Your task to perform on an android device: open app "DuckDuckGo Privacy Browser" (install if not already installed) Image 0: 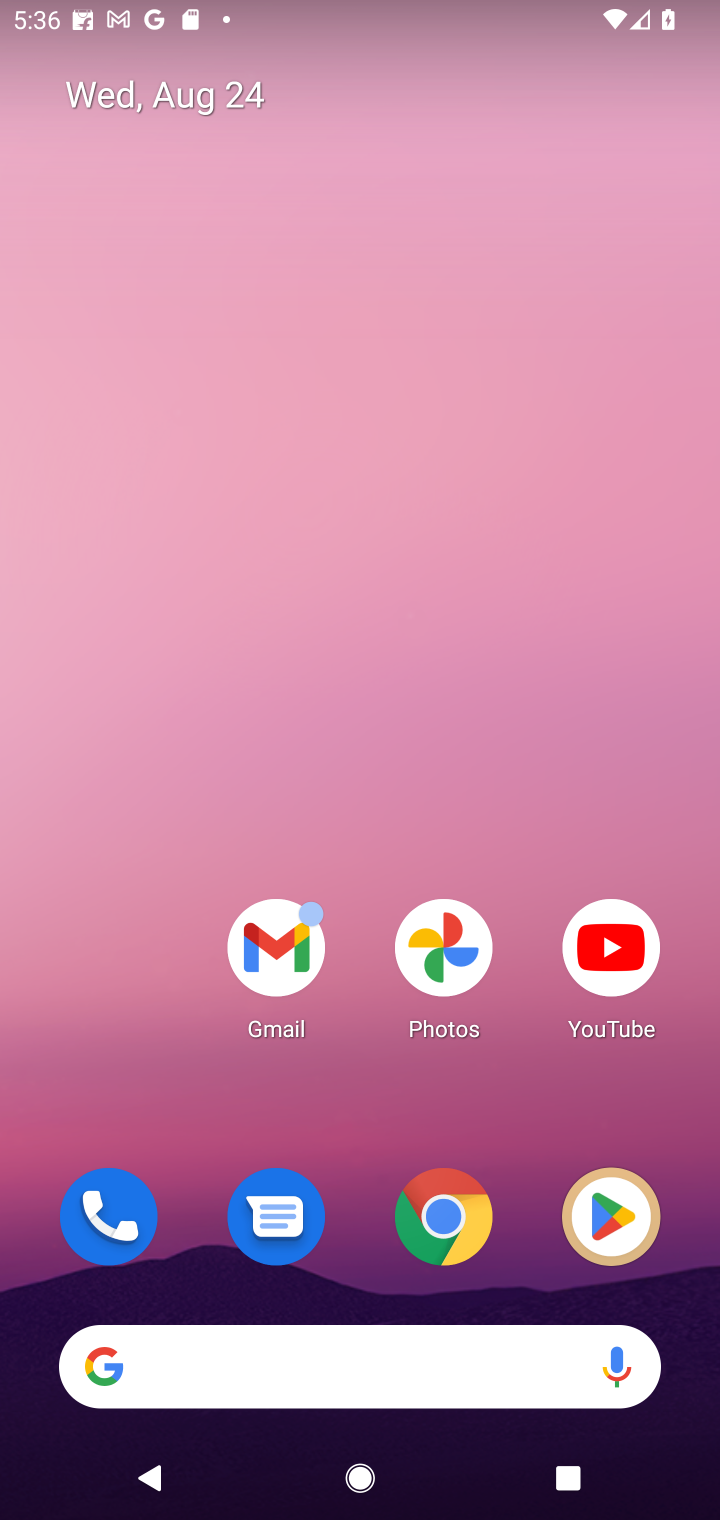
Step 0: click (607, 1234)
Your task to perform on an android device: open app "DuckDuckGo Privacy Browser" (install if not already installed) Image 1: 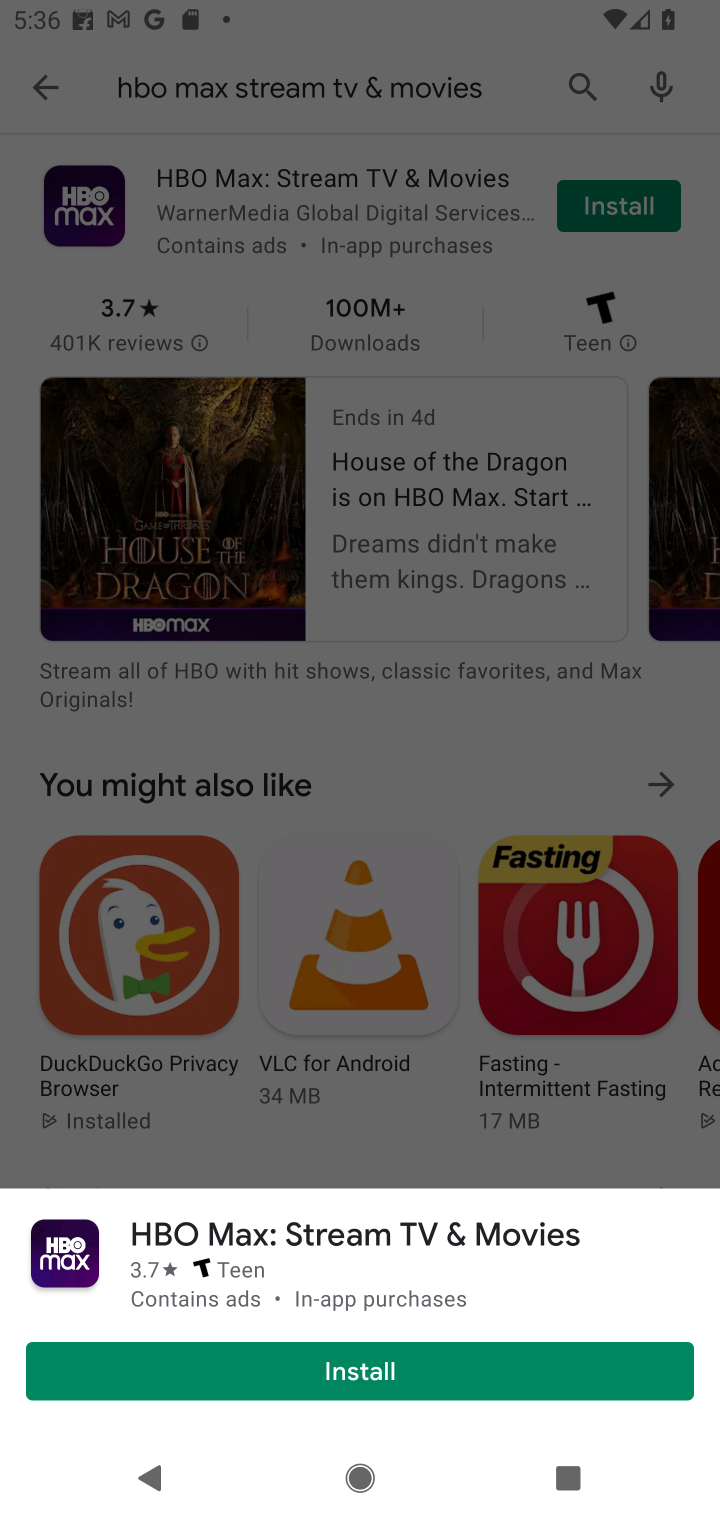
Step 1: click (572, 96)
Your task to perform on an android device: open app "DuckDuckGo Privacy Browser" (install if not already installed) Image 2: 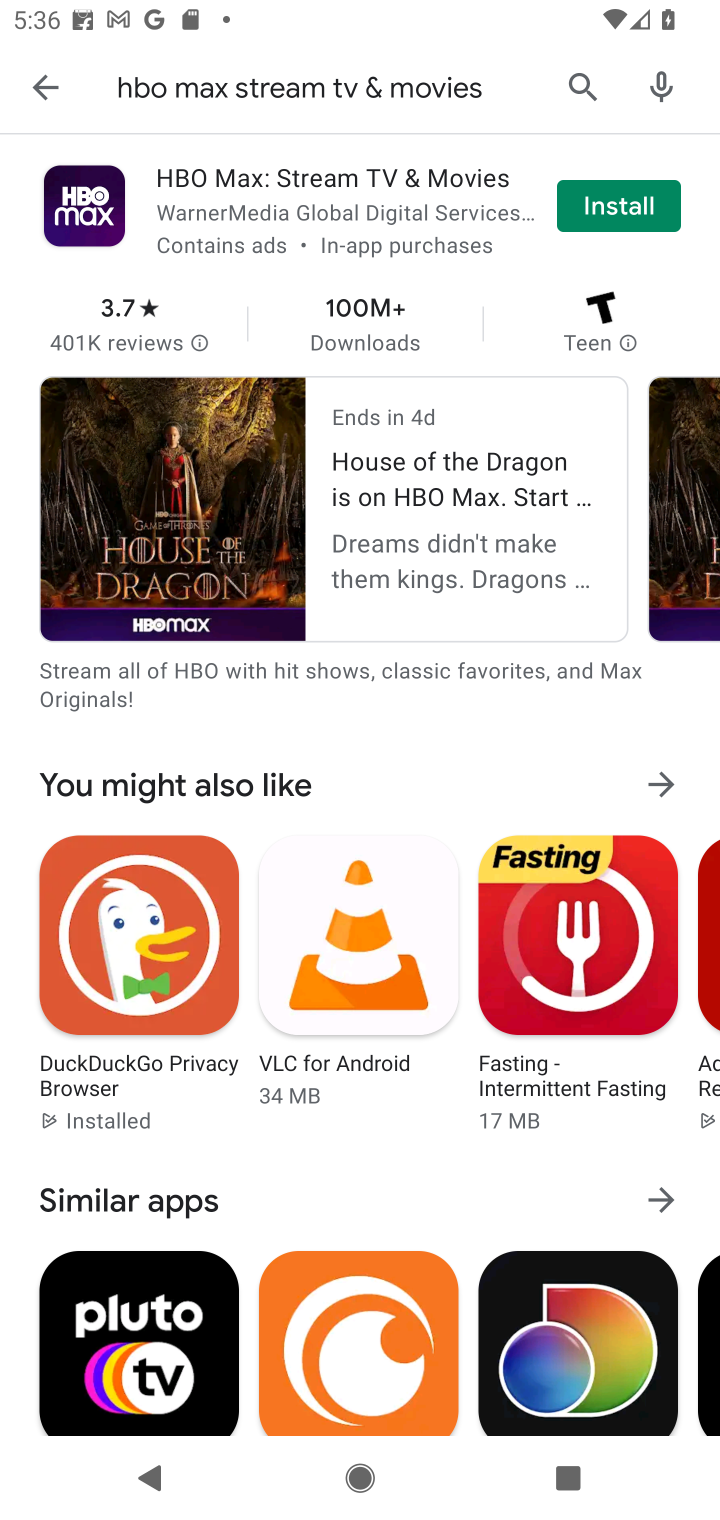
Step 2: click (572, 93)
Your task to perform on an android device: open app "DuckDuckGo Privacy Browser" (install if not already installed) Image 3: 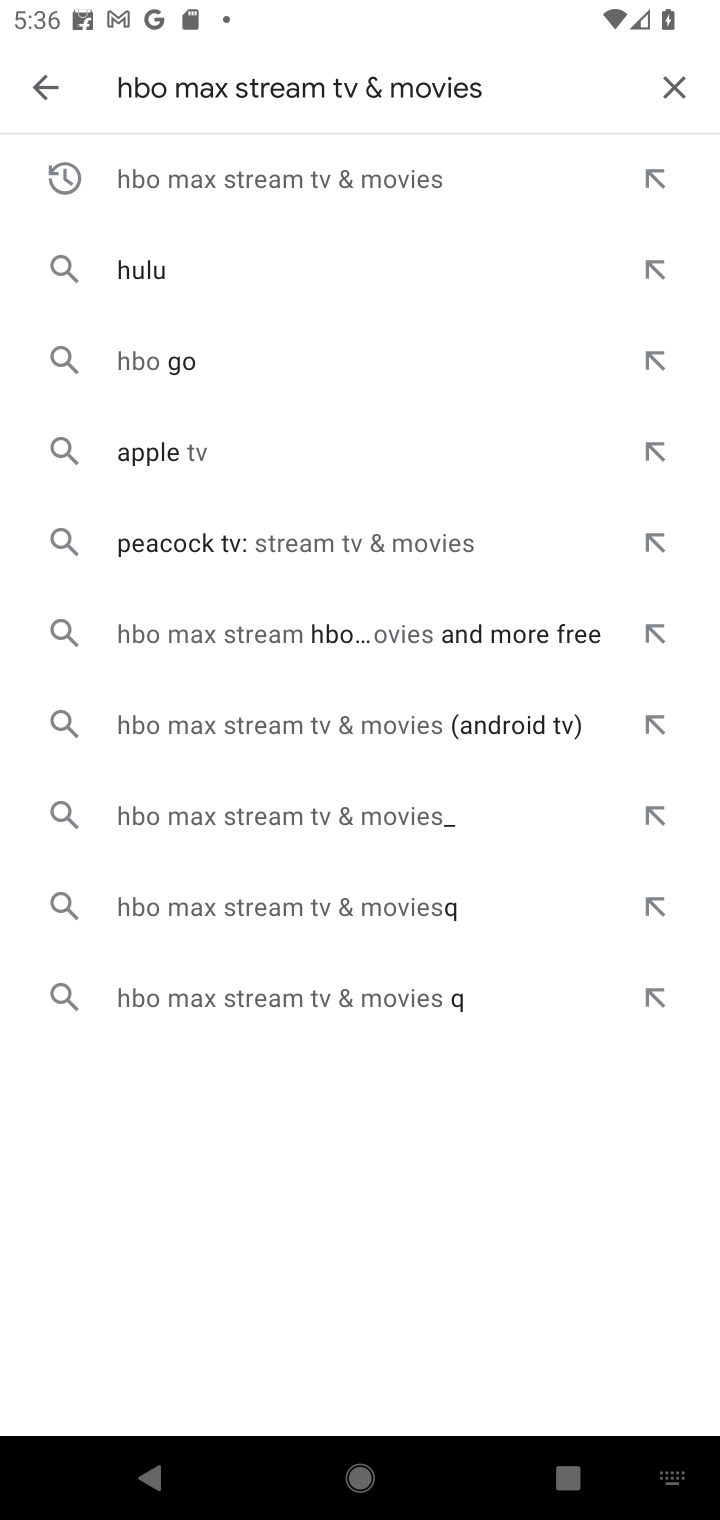
Step 3: click (661, 85)
Your task to perform on an android device: open app "DuckDuckGo Privacy Browser" (install if not already installed) Image 4: 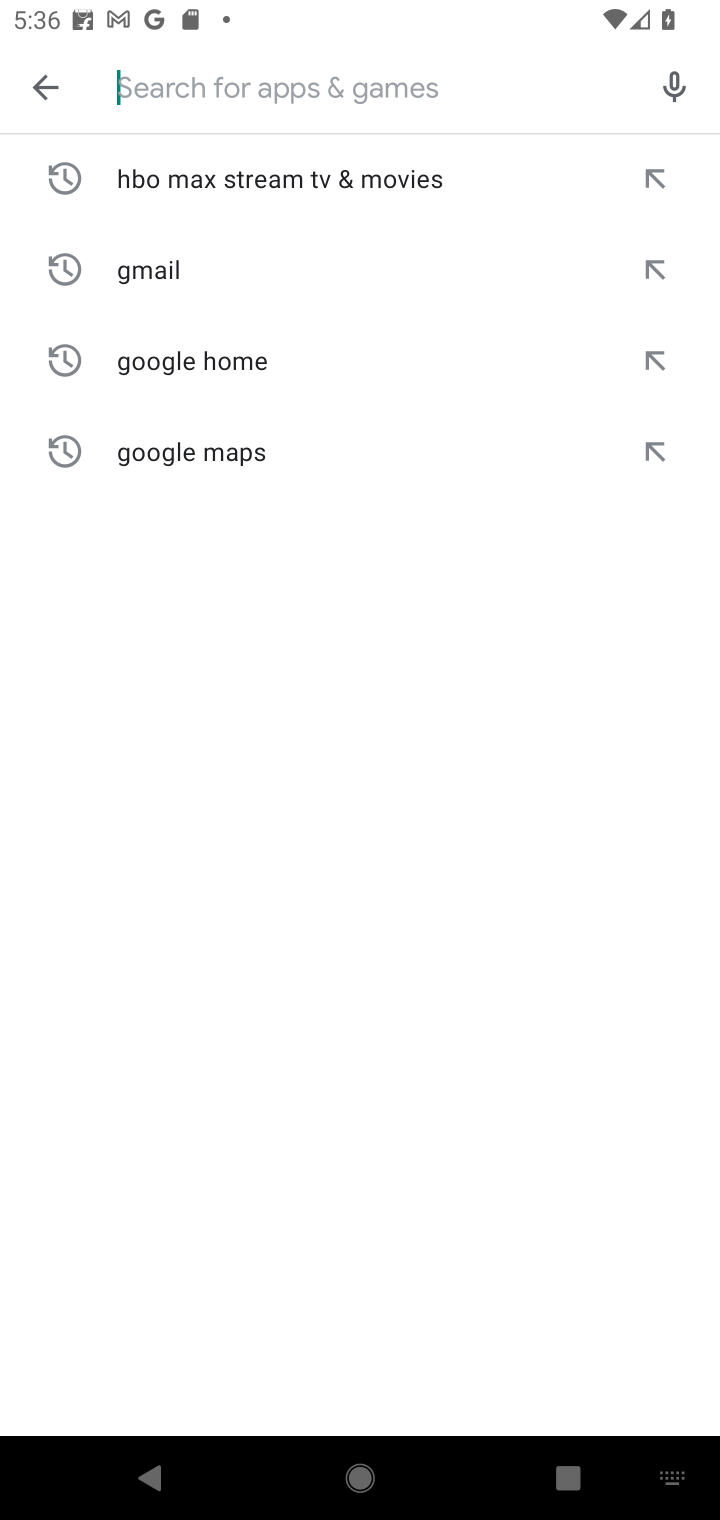
Step 4: type "DuckDuckGo Privacy Browser"
Your task to perform on an android device: open app "DuckDuckGo Privacy Browser" (install if not already installed) Image 5: 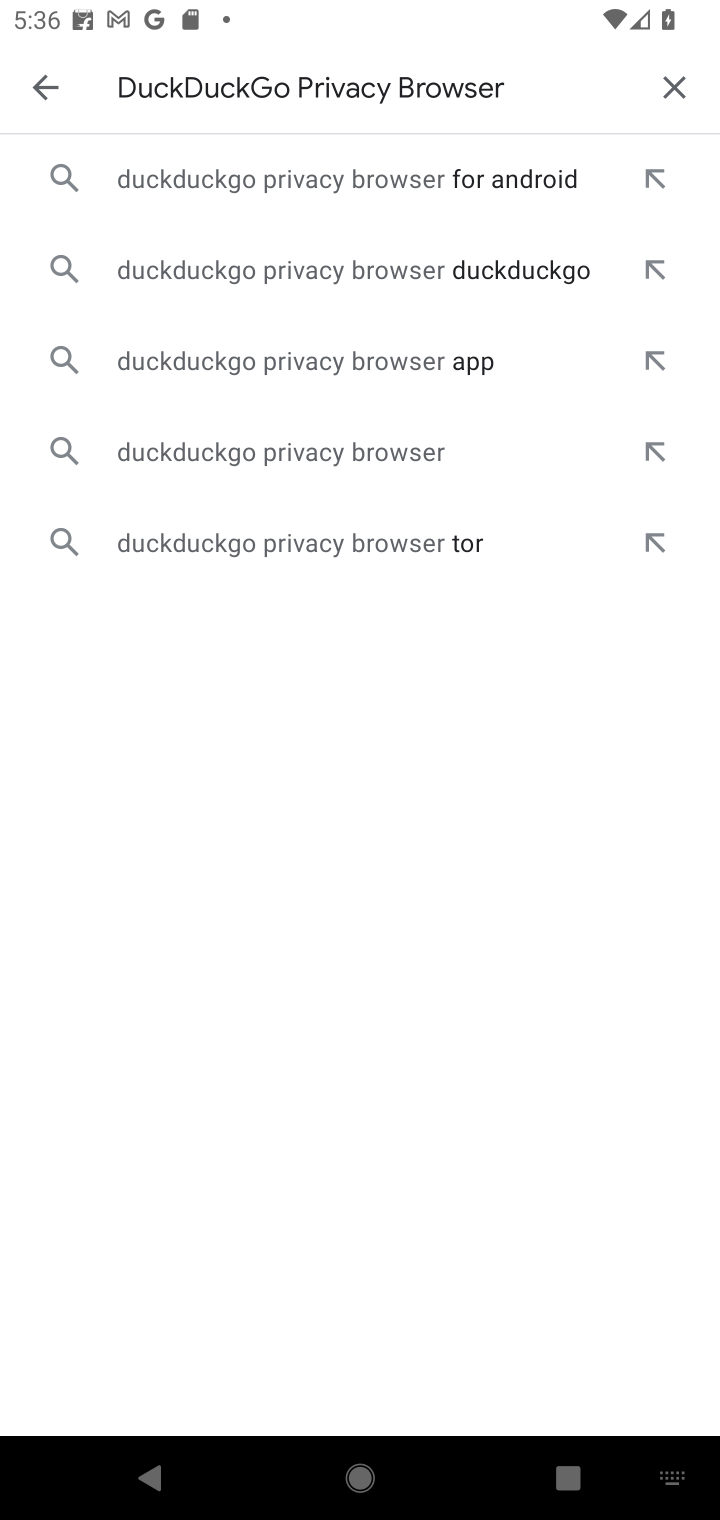
Step 5: click (108, 153)
Your task to perform on an android device: open app "DuckDuckGo Privacy Browser" (install if not already installed) Image 6: 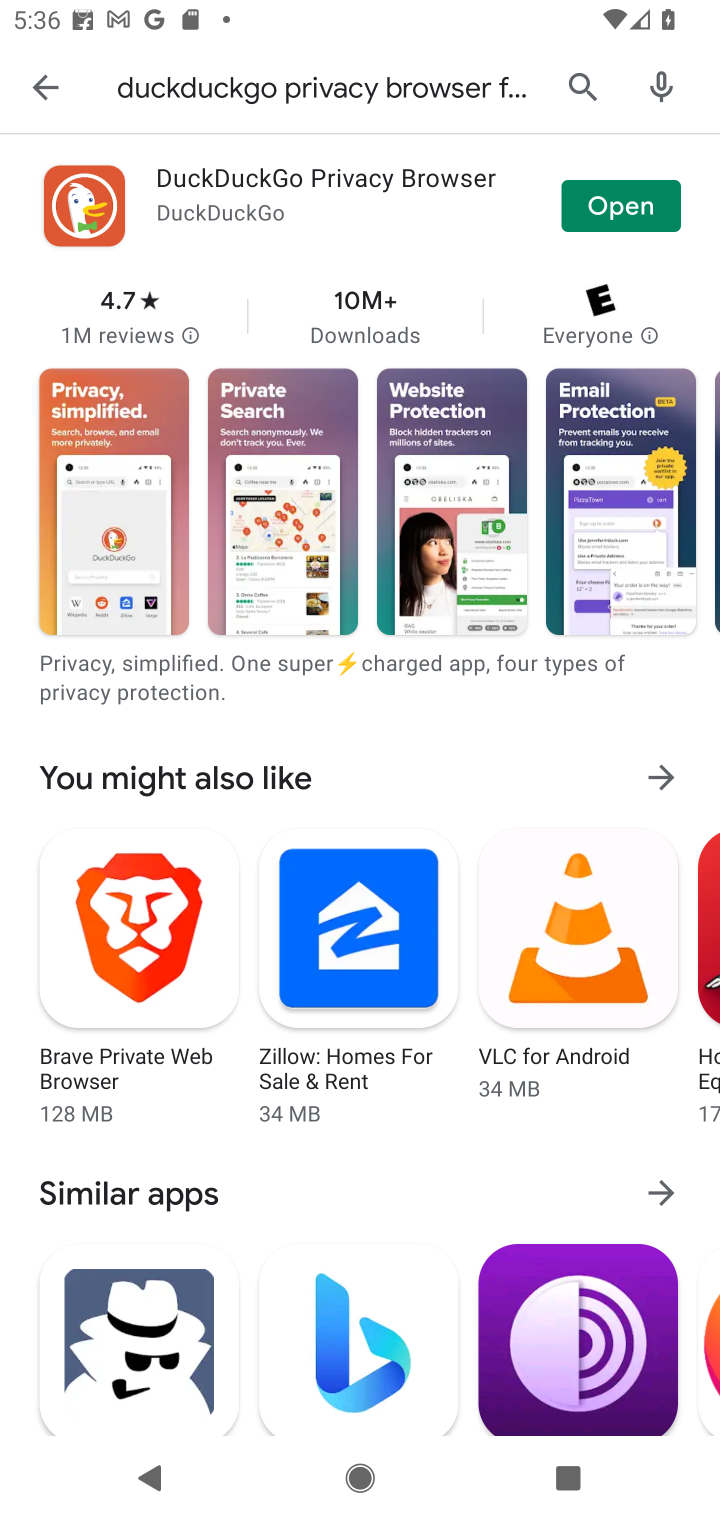
Step 6: click (636, 194)
Your task to perform on an android device: open app "DuckDuckGo Privacy Browser" (install if not already installed) Image 7: 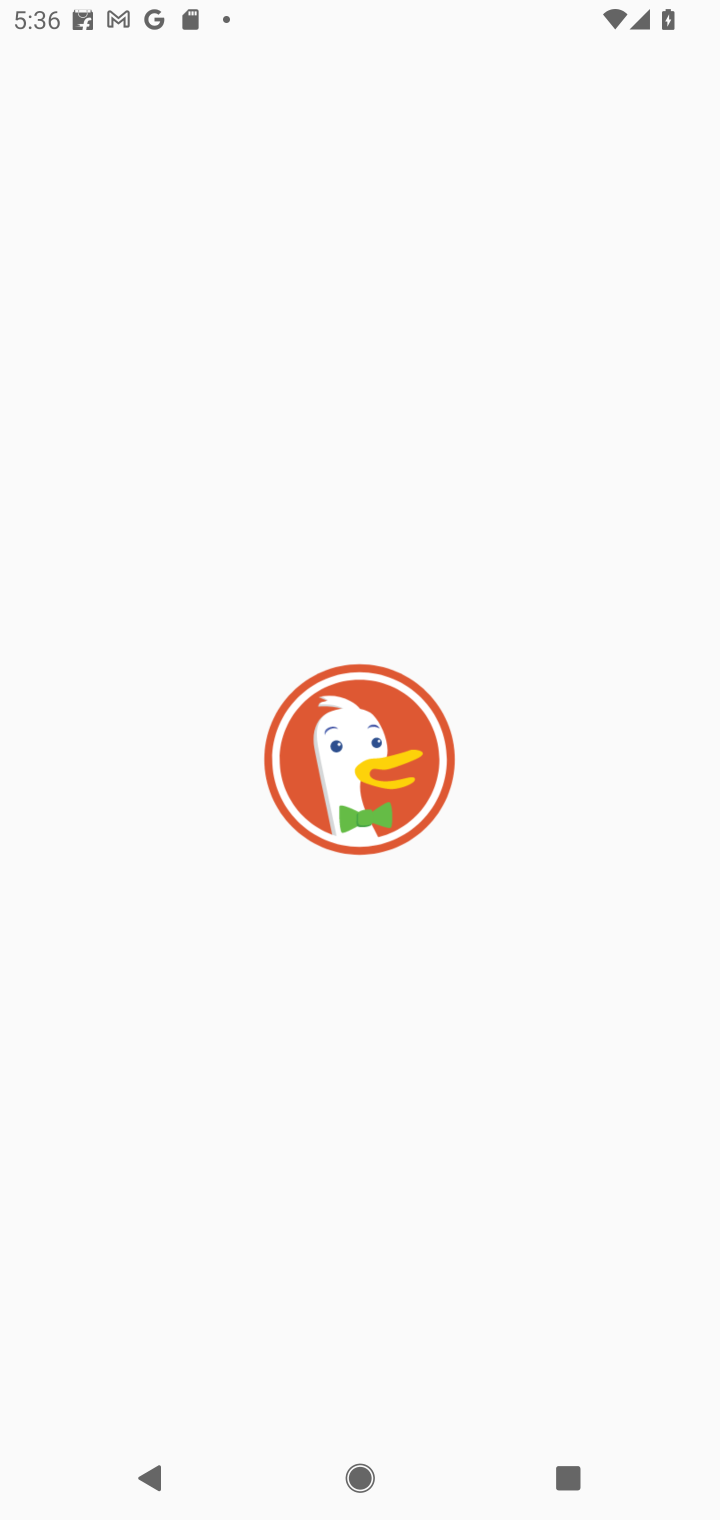
Step 7: task complete